Your task to perform on an android device: toggle notification dots Image 0: 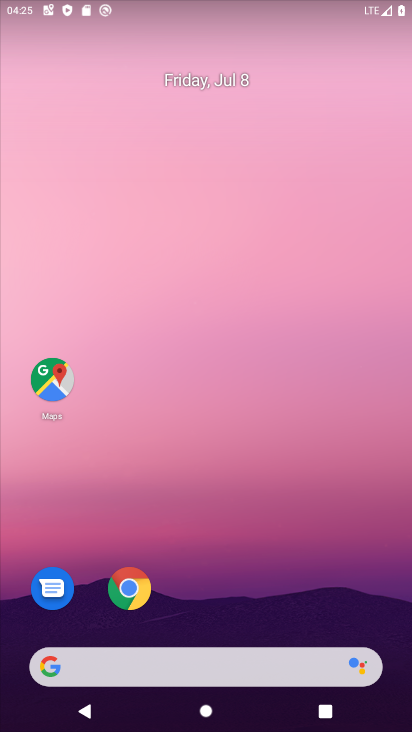
Step 0: drag from (215, 456) to (238, 59)
Your task to perform on an android device: toggle notification dots Image 1: 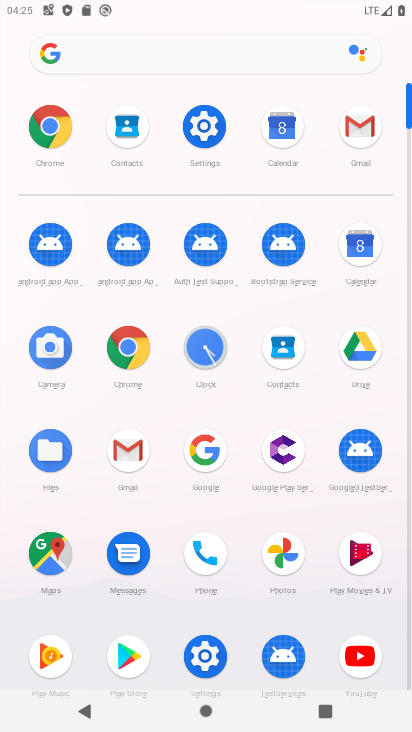
Step 1: click (205, 127)
Your task to perform on an android device: toggle notification dots Image 2: 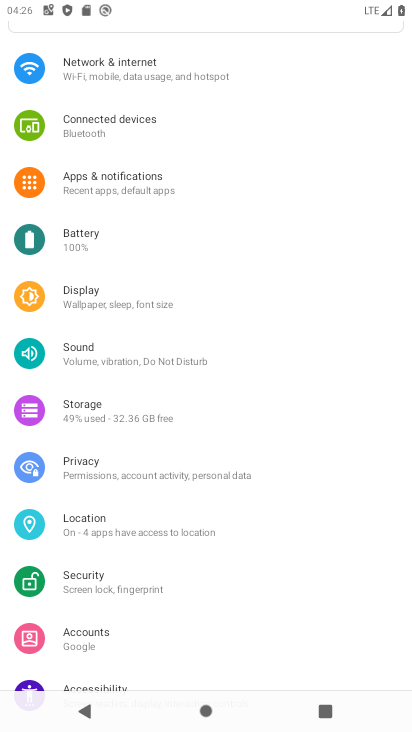
Step 2: click (117, 178)
Your task to perform on an android device: toggle notification dots Image 3: 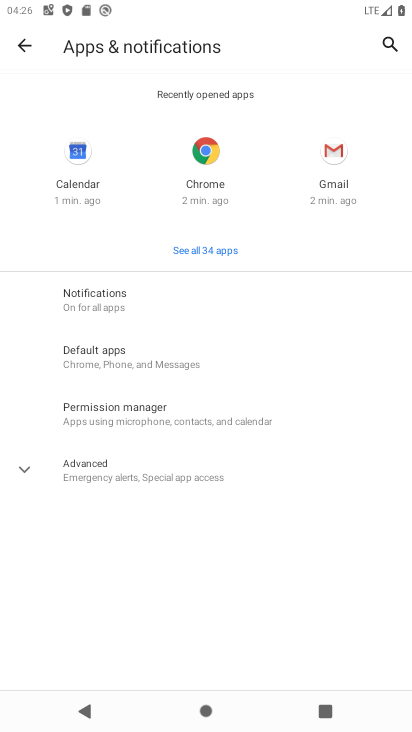
Step 3: click (86, 305)
Your task to perform on an android device: toggle notification dots Image 4: 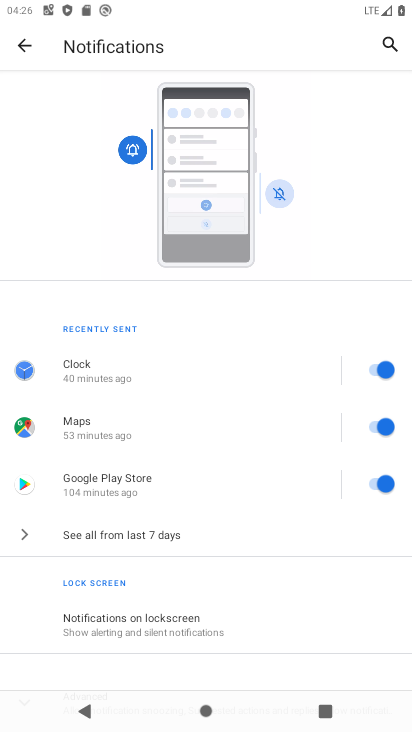
Step 4: drag from (216, 585) to (191, 313)
Your task to perform on an android device: toggle notification dots Image 5: 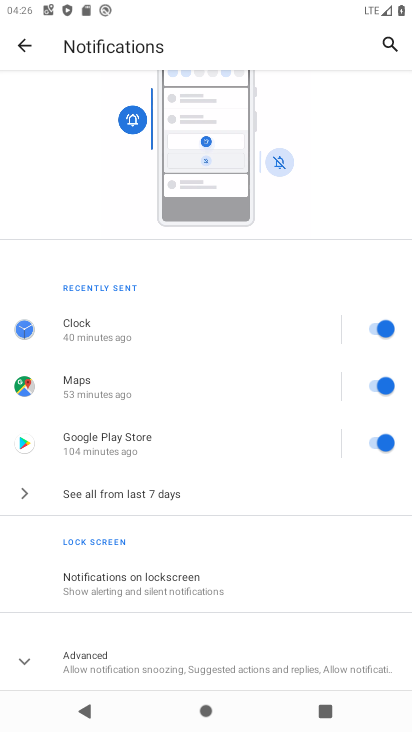
Step 5: click (106, 664)
Your task to perform on an android device: toggle notification dots Image 6: 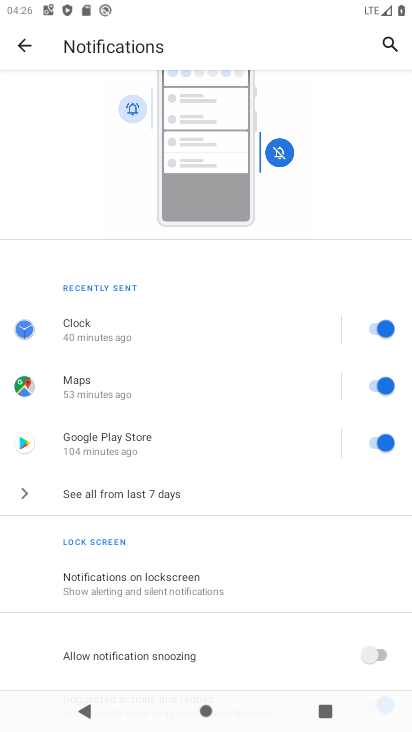
Step 6: click (161, 357)
Your task to perform on an android device: toggle notification dots Image 7: 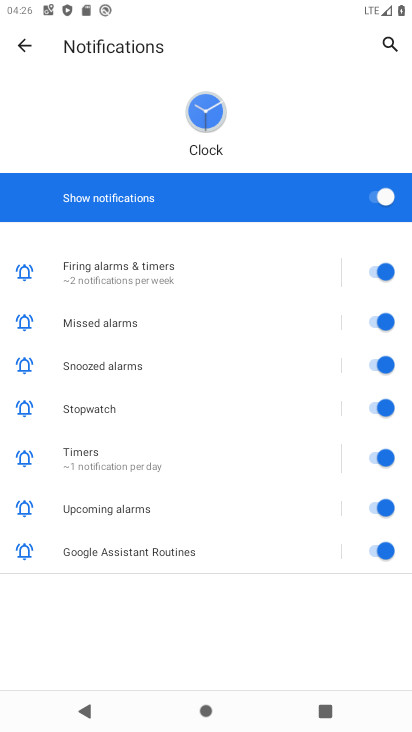
Step 7: click (23, 40)
Your task to perform on an android device: toggle notification dots Image 8: 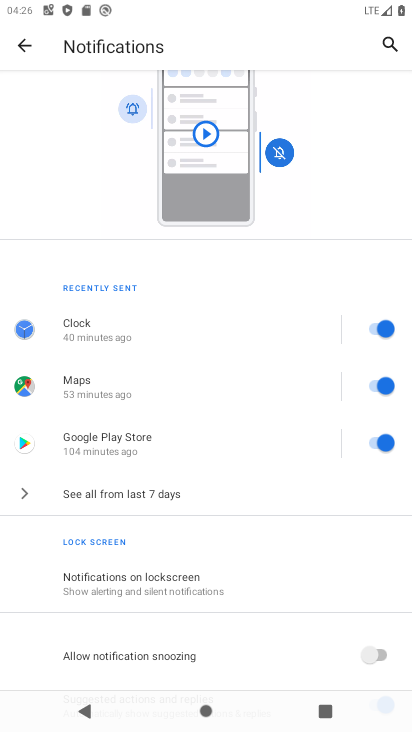
Step 8: drag from (192, 578) to (187, 381)
Your task to perform on an android device: toggle notification dots Image 9: 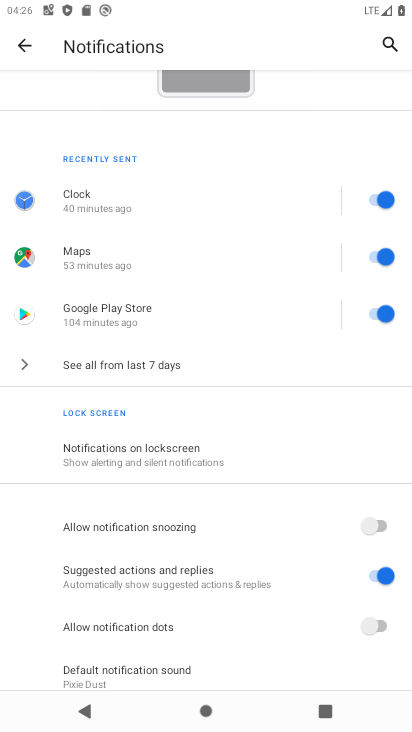
Step 9: click (386, 628)
Your task to perform on an android device: toggle notification dots Image 10: 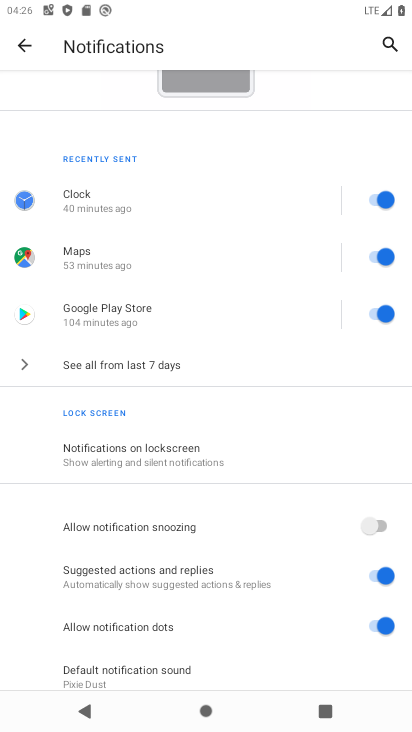
Step 10: task complete